Your task to perform on an android device: install app "File Manager" Image 0: 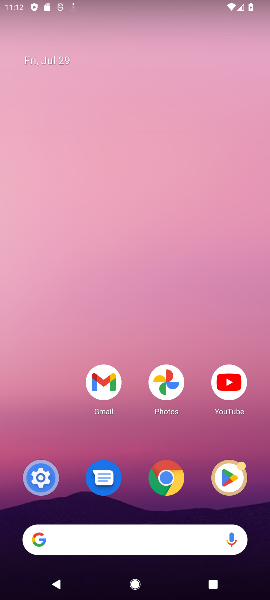
Step 0: click (227, 480)
Your task to perform on an android device: install app "File Manager" Image 1: 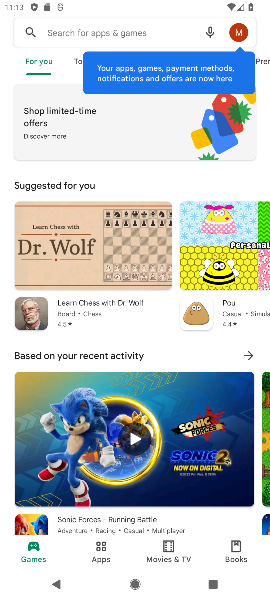
Step 1: click (56, 34)
Your task to perform on an android device: install app "File Manager" Image 2: 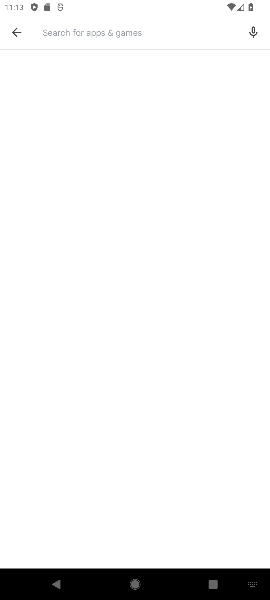
Step 2: type "File Manager""
Your task to perform on an android device: install app "File Manager" Image 3: 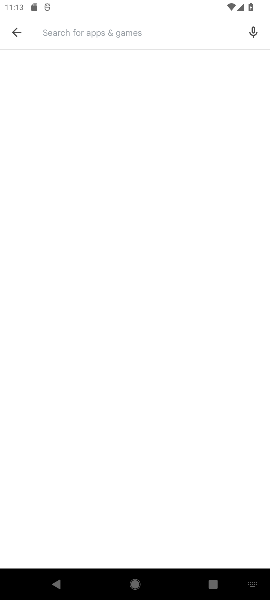
Step 3: type "File Manager "
Your task to perform on an android device: install app "File Manager" Image 4: 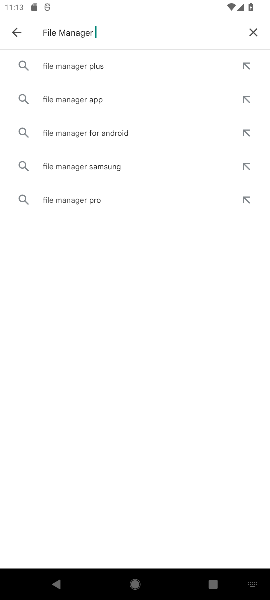
Step 4: click (88, 62)
Your task to perform on an android device: install app "File Manager" Image 5: 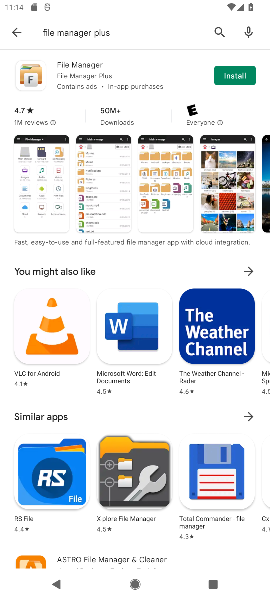
Step 5: click (234, 78)
Your task to perform on an android device: install app "File Manager" Image 6: 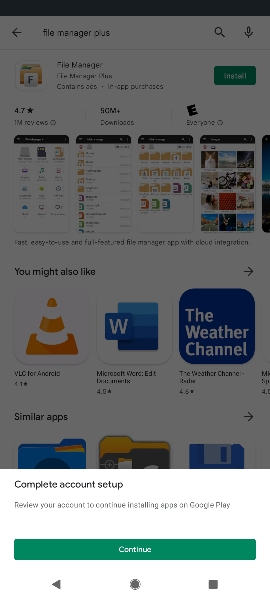
Step 6: click (96, 543)
Your task to perform on an android device: install app "File Manager" Image 7: 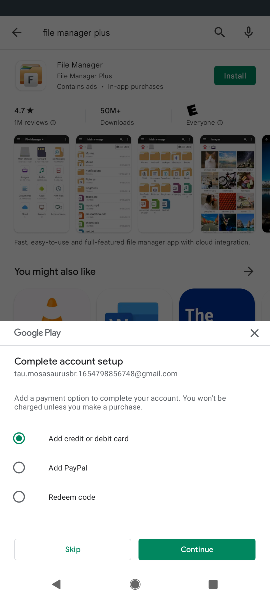
Step 7: click (74, 548)
Your task to perform on an android device: install app "File Manager" Image 8: 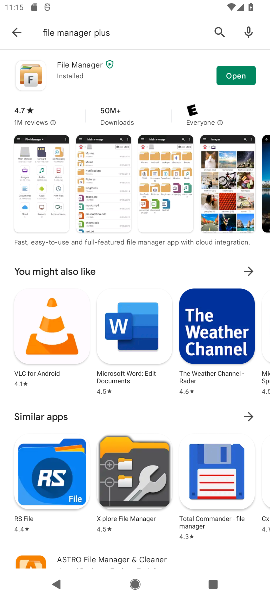
Step 8: task complete